Your task to perform on an android device: toggle show notifications on the lock screen Image 0: 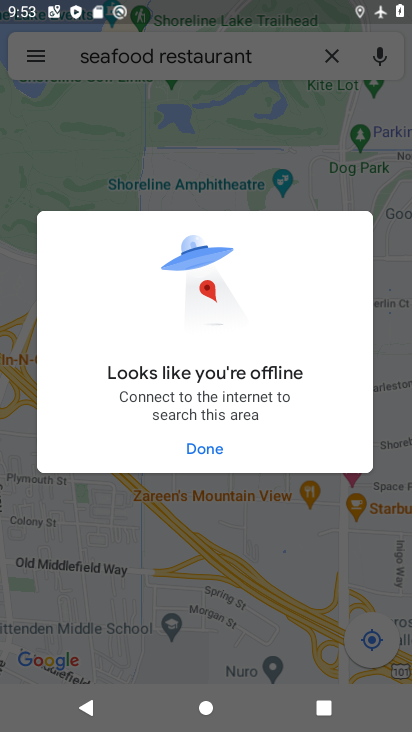
Step 0: press home button
Your task to perform on an android device: toggle show notifications on the lock screen Image 1: 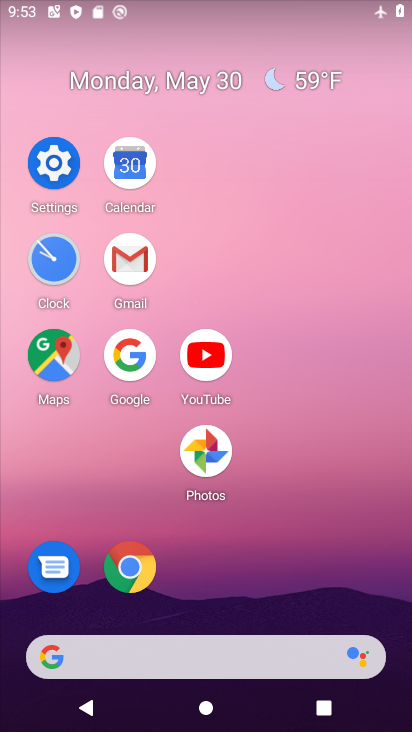
Step 1: click (58, 165)
Your task to perform on an android device: toggle show notifications on the lock screen Image 2: 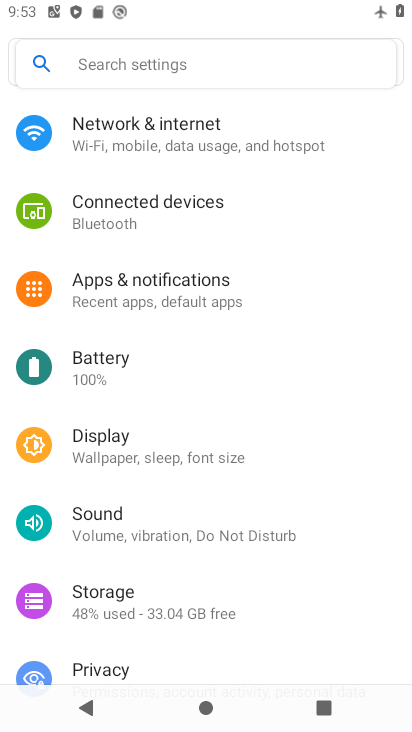
Step 2: click (185, 312)
Your task to perform on an android device: toggle show notifications on the lock screen Image 3: 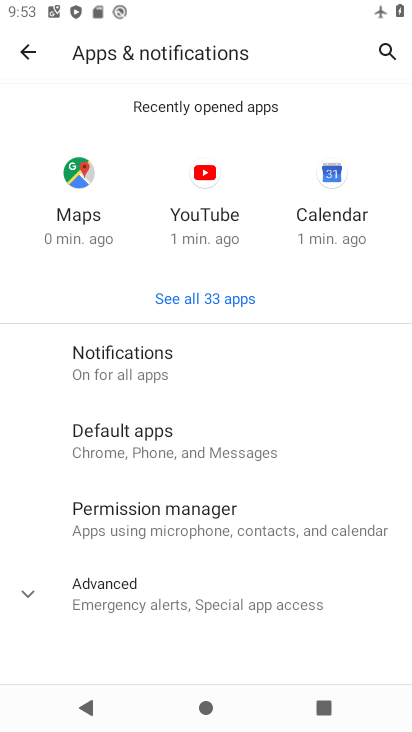
Step 3: click (217, 358)
Your task to perform on an android device: toggle show notifications on the lock screen Image 4: 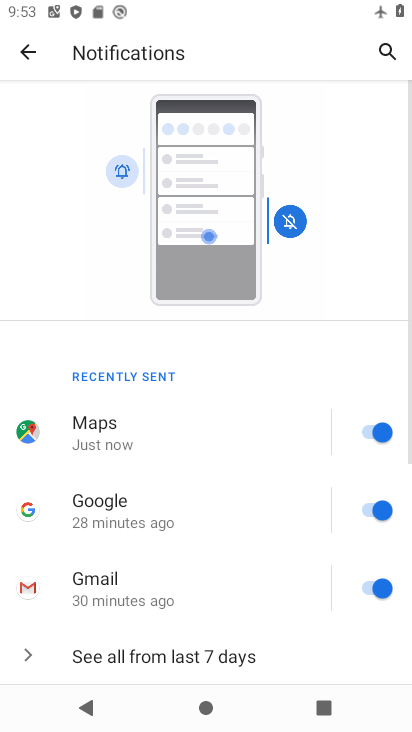
Step 4: drag from (167, 590) to (129, 180)
Your task to perform on an android device: toggle show notifications on the lock screen Image 5: 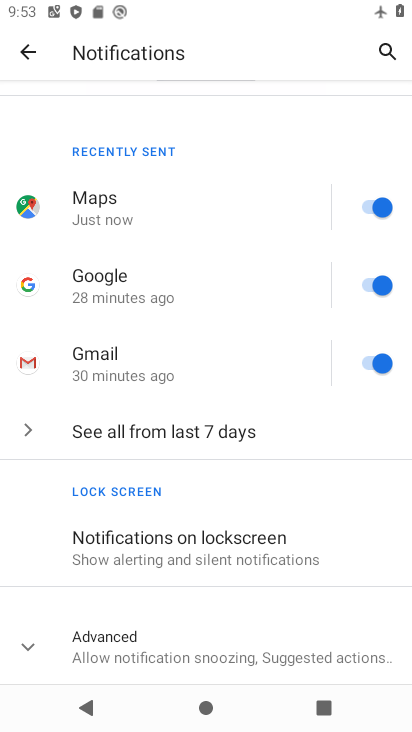
Step 5: click (211, 571)
Your task to perform on an android device: toggle show notifications on the lock screen Image 6: 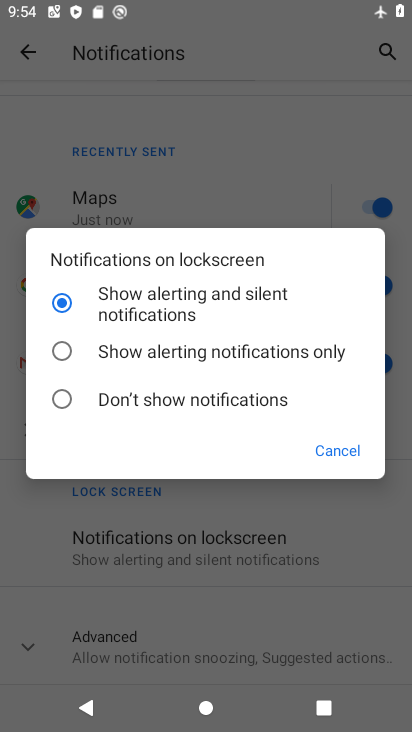
Step 6: click (189, 356)
Your task to perform on an android device: toggle show notifications on the lock screen Image 7: 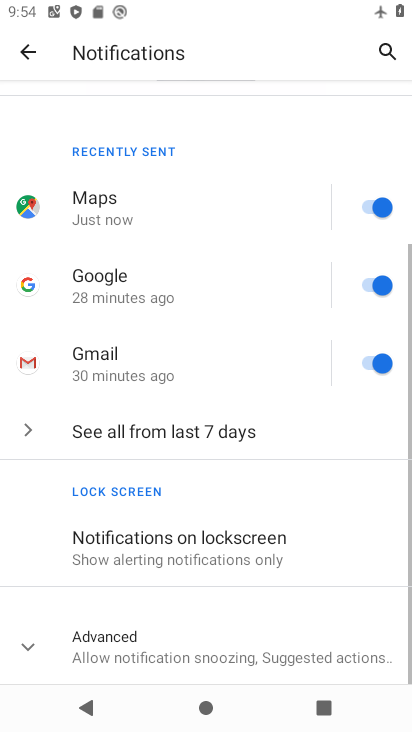
Step 7: task complete